Your task to perform on an android device: Open settings on Google Maps Image 0: 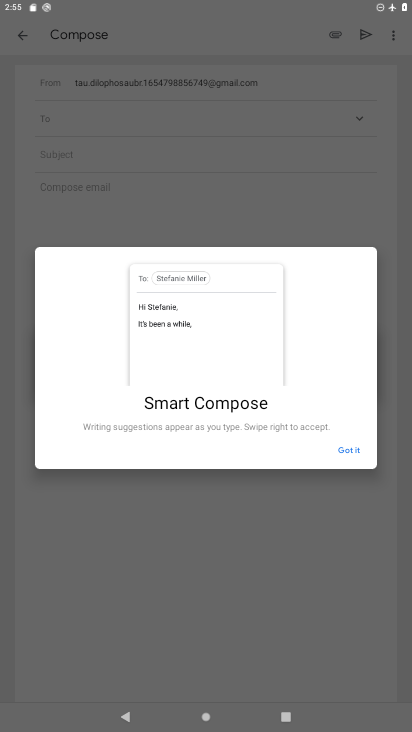
Step 0: press home button
Your task to perform on an android device: Open settings on Google Maps Image 1: 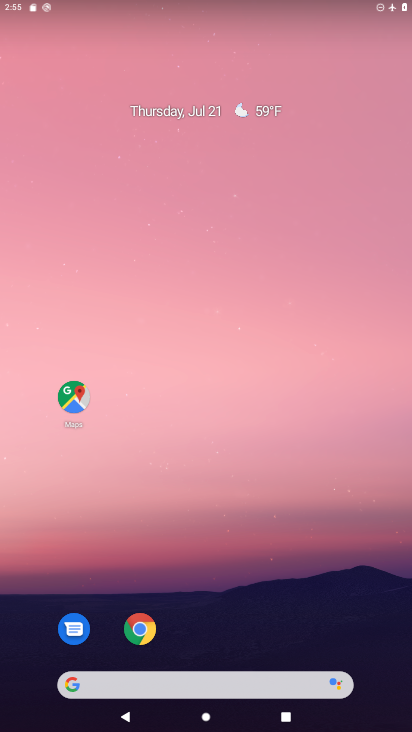
Step 1: drag from (240, 555) to (240, 147)
Your task to perform on an android device: Open settings on Google Maps Image 2: 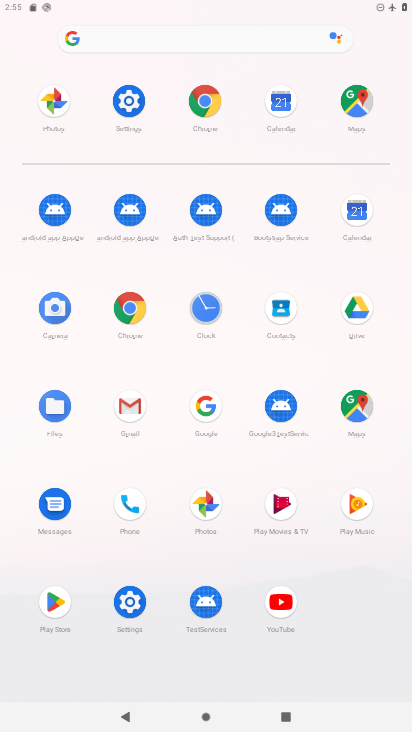
Step 2: click (359, 398)
Your task to perform on an android device: Open settings on Google Maps Image 3: 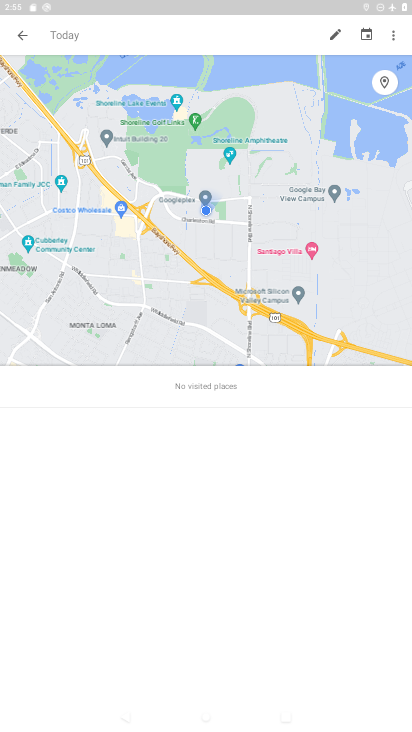
Step 3: click (24, 33)
Your task to perform on an android device: Open settings on Google Maps Image 4: 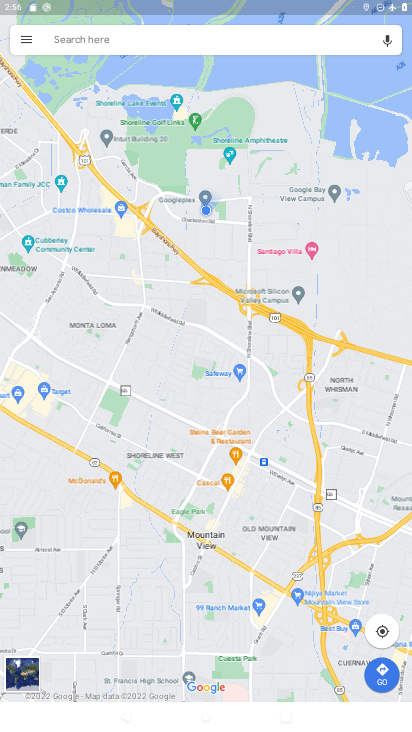
Step 4: click (21, 37)
Your task to perform on an android device: Open settings on Google Maps Image 5: 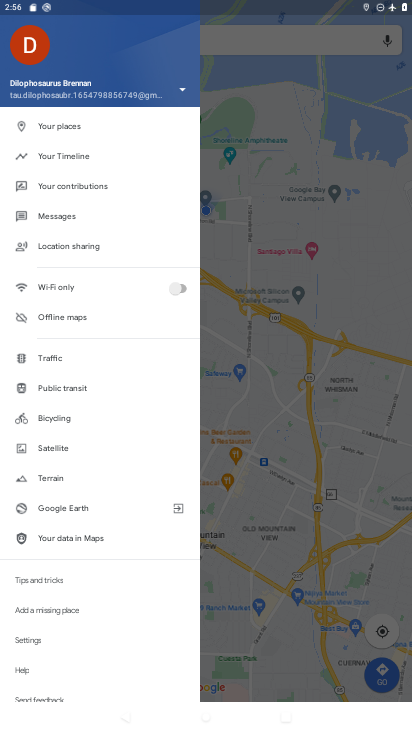
Step 5: click (31, 641)
Your task to perform on an android device: Open settings on Google Maps Image 6: 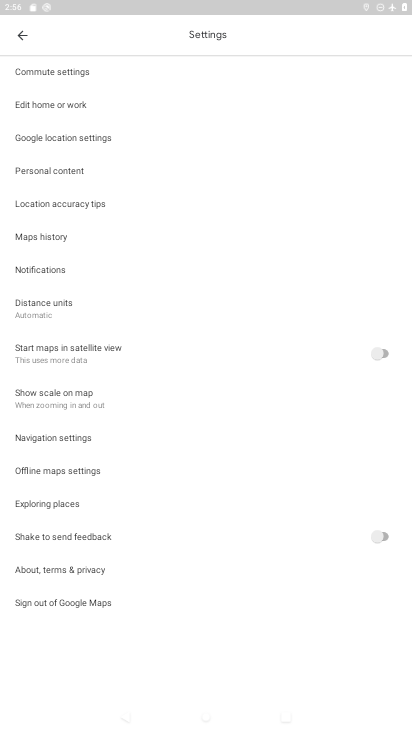
Step 6: task complete